Your task to perform on an android device: Open sound settings Image 0: 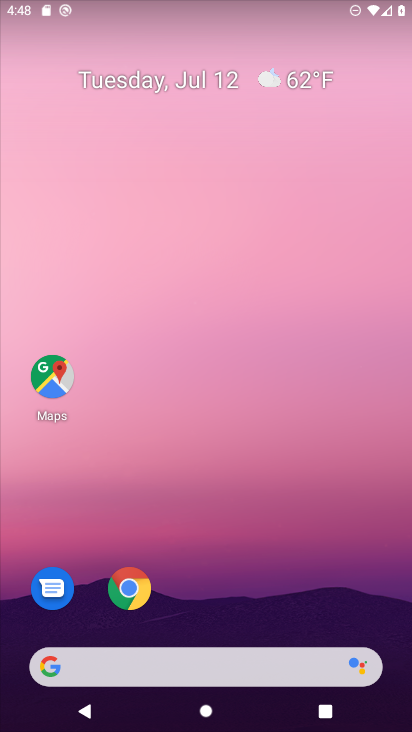
Step 0: drag from (210, 609) to (256, 81)
Your task to perform on an android device: Open sound settings Image 1: 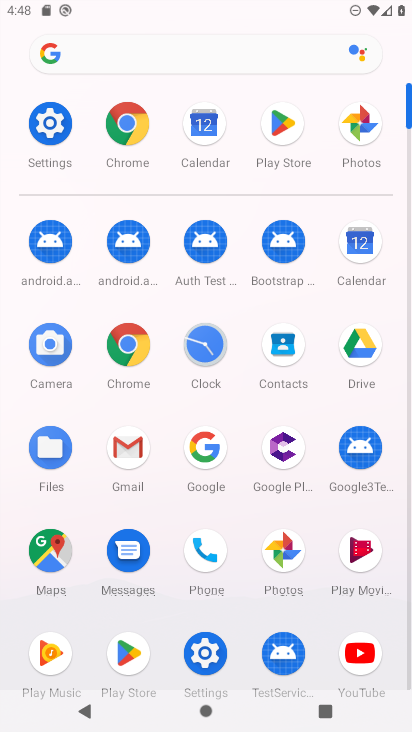
Step 1: click (62, 123)
Your task to perform on an android device: Open sound settings Image 2: 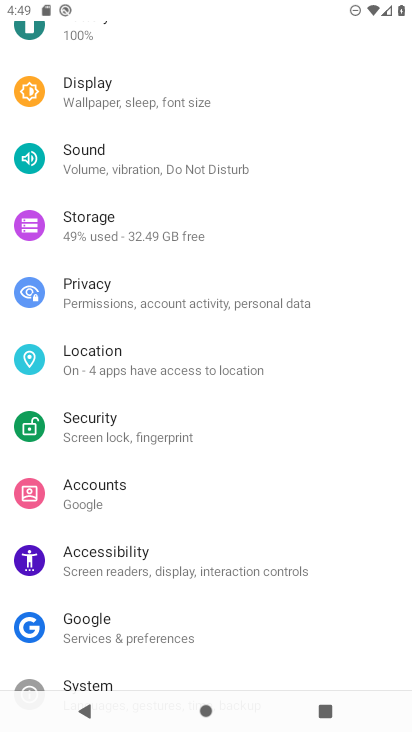
Step 2: drag from (262, 186) to (278, 368)
Your task to perform on an android device: Open sound settings Image 3: 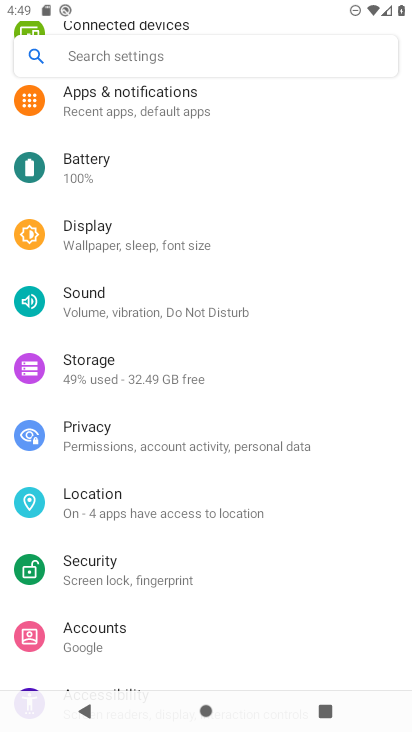
Step 3: click (122, 305)
Your task to perform on an android device: Open sound settings Image 4: 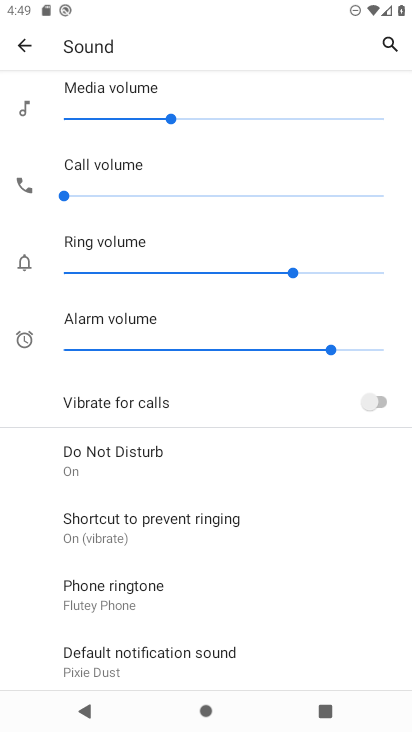
Step 4: task complete